Your task to perform on an android device: change notification settings in the gmail app Image 0: 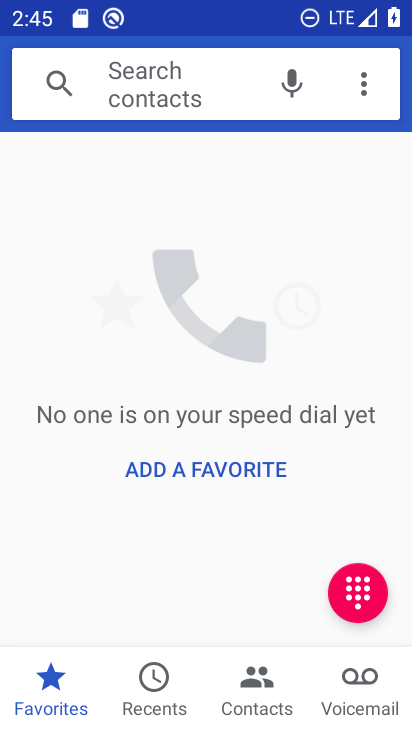
Step 0: press home button
Your task to perform on an android device: change notification settings in the gmail app Image 1: 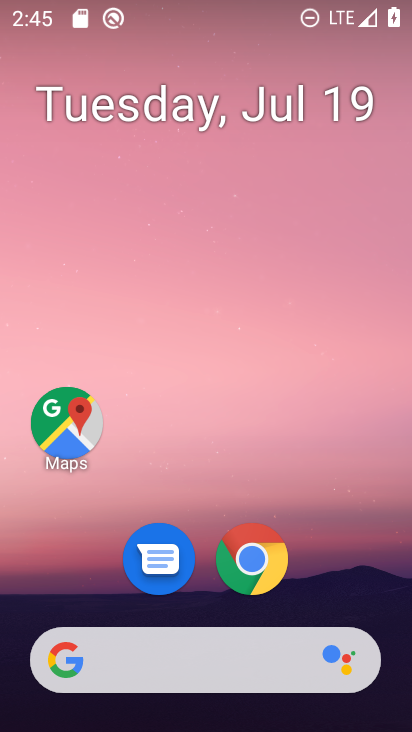
Step 1: drag from (208, 652) to (262, 85)
Your task to perform on an android device: change notification settings in the gmail app Image 2: 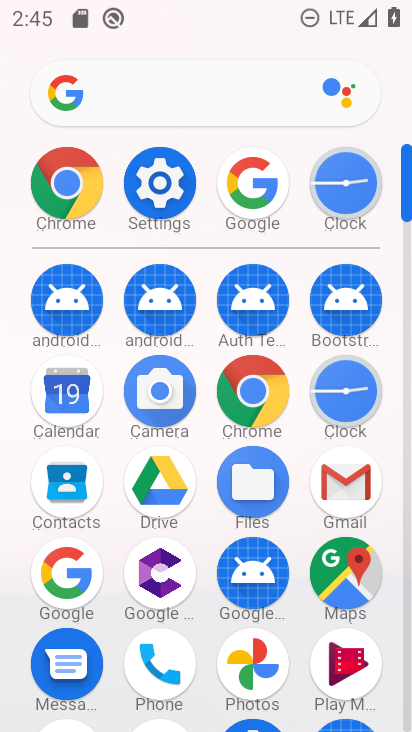
Step 2: drag from (270, 542) to (281, 261)
Your task to perform on an android device: change notification settings in the gmail app Image 3: 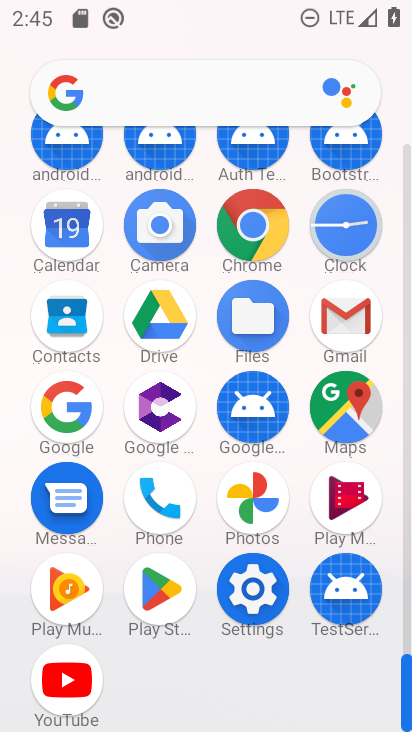
Step 3: click (360, 336)
Your task to perform on an android device: change notification settings in the gmail app Image 4: 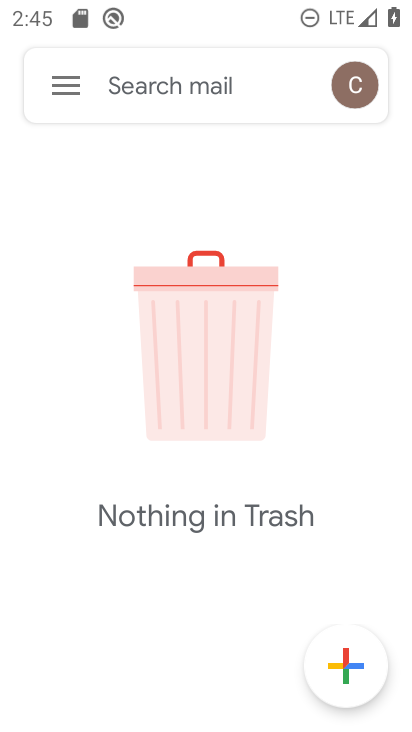
Step 4: click (65, 97)
Your task to perform on an android device: change notification settings in the gmail app Image 5: 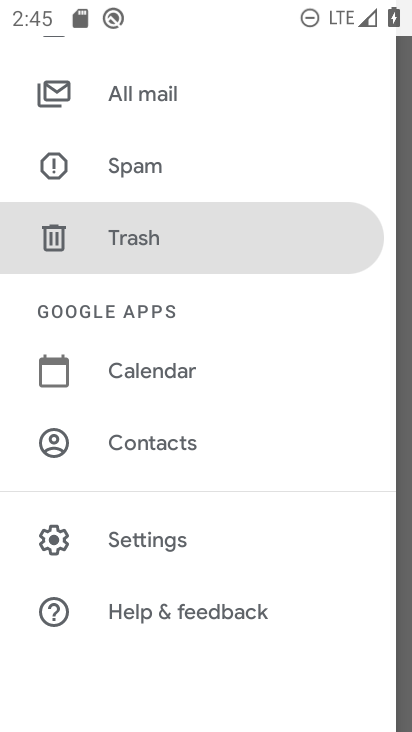
Step 5: click (177, 538)
Your task to perform on an android device: change notification settings in the gmail app Image 6: 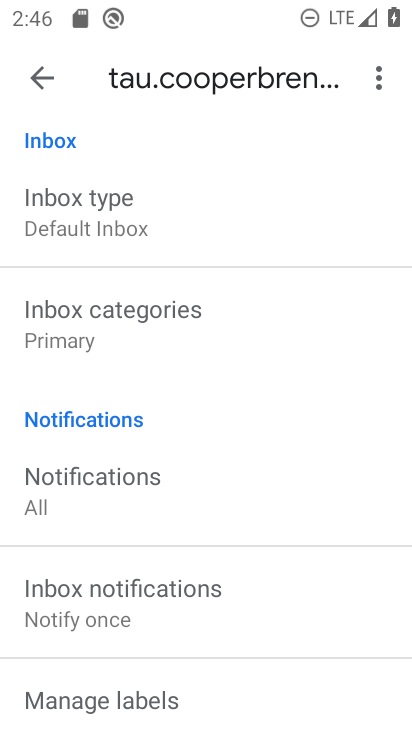
Step 6: drag from (187, 624) to (225, 390)
Your task to perform on an android device: change notification settings in the gmail app Image 7: 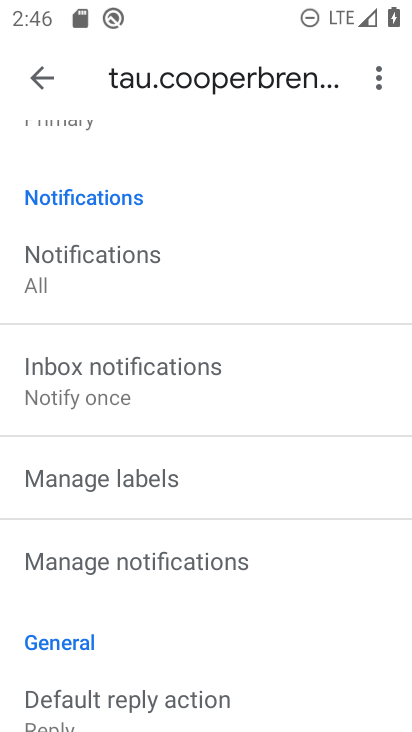
Step 7: click (56, 83)
Your task to perform on an android device: change notification settings in the gmail app Image 8: 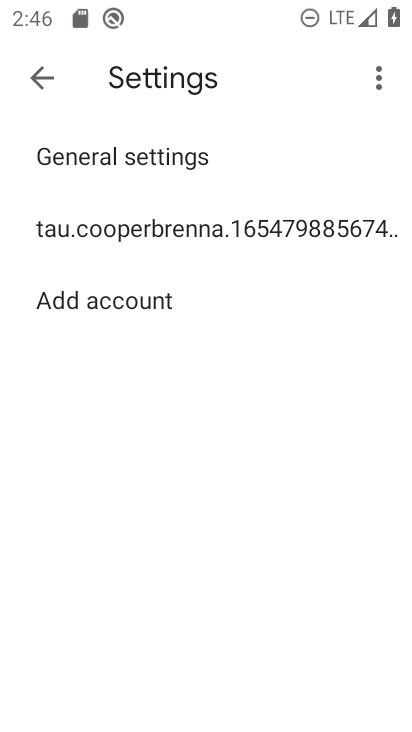
Step 8: click (185, 169)
Your task to perform on an android device: change notification settings in the gmail app Image 9: 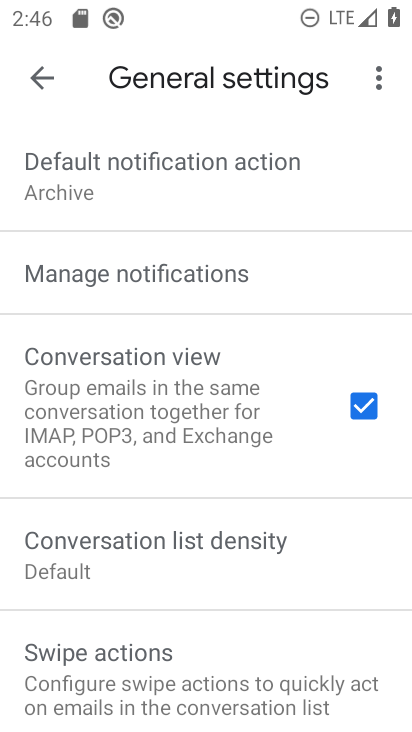
Step 9: drag from (185, 592) to (227, 550)
Your task to perform on an android device: change notification settings in the gmail app Image 10: 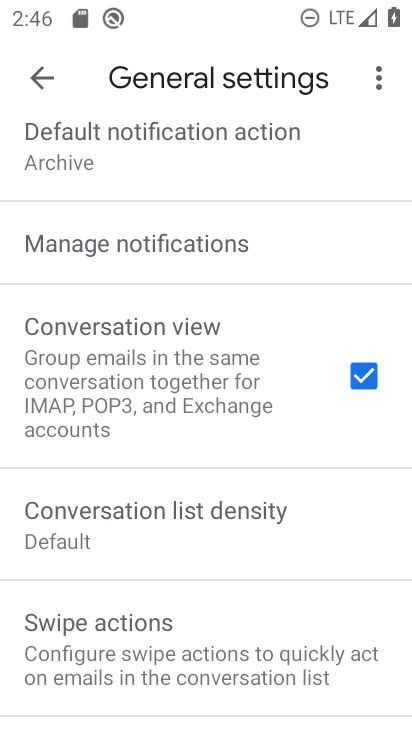
Step 10: click (199, 249)
Your task to perform on an android device: change notification settings in the gmail app Image 11: 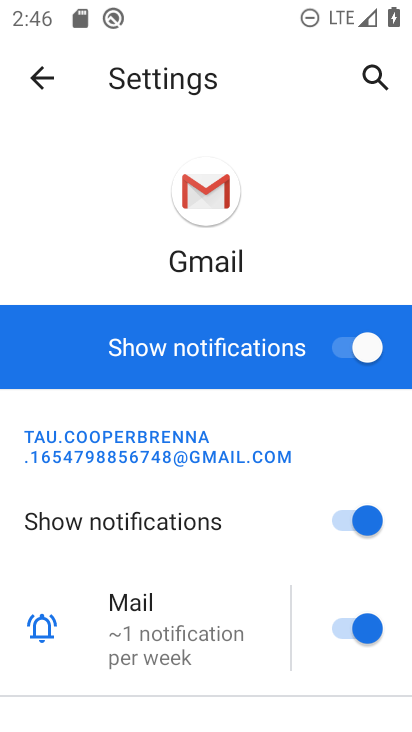
Step 11: click (328, 352)
Your task to perform on an android device: change notification settings in the gmail app Image 12: 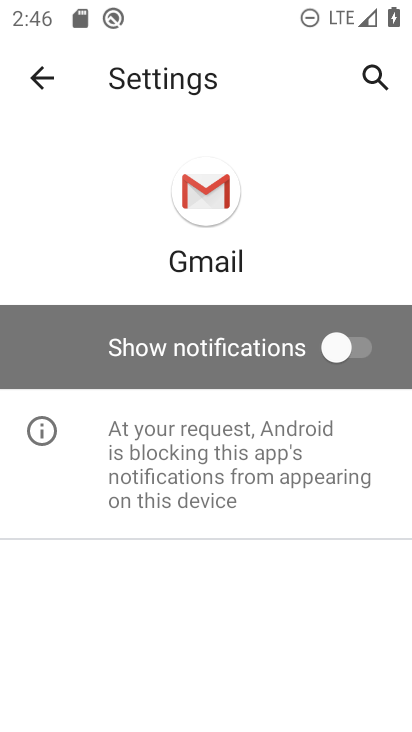
Step 12: task complete